Your task to perform on an android device: turn off airplane mode Image 0: 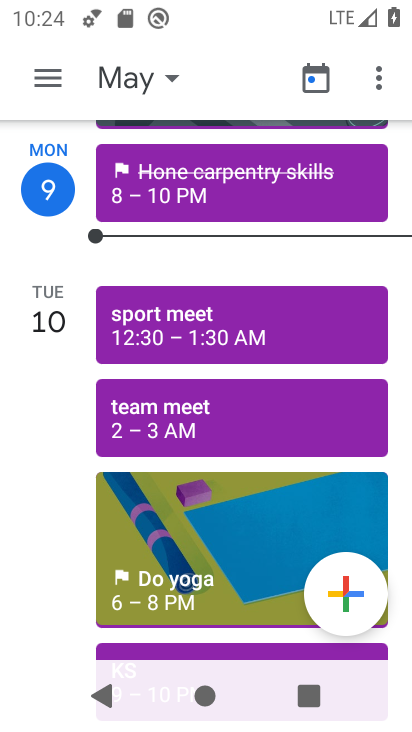
Step 0: press home button
Your task to perform on an android device: turn off airplane mode Image 1: 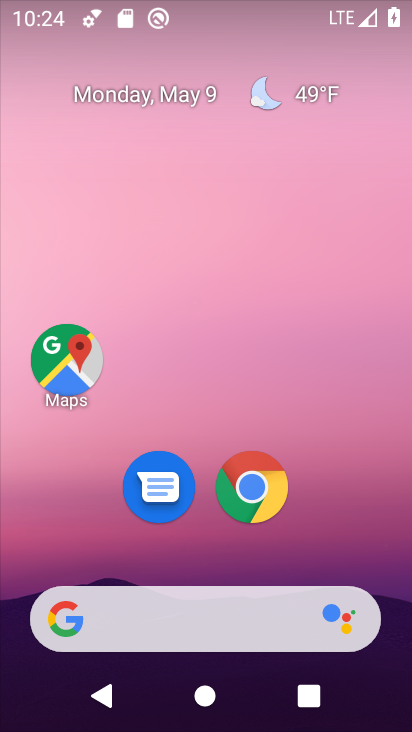
Step 1: drag from (313, 545) to (257, 81)
Your task to perform on an android device: turn off airplane mode Image 2: 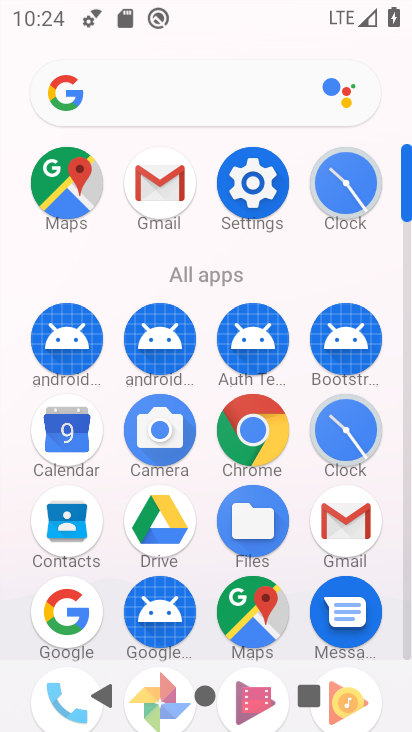
Step 2: click (250, 215)
Your task to perform on an android device: turn off airplane mode Image 3: 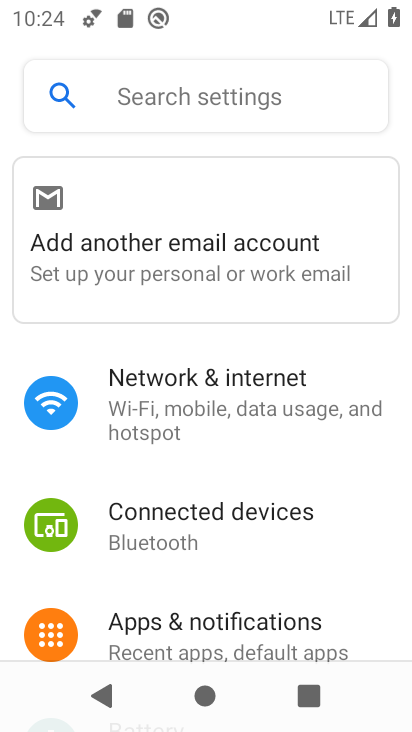
Step 3: drag from (230, 559) to (247, 260)
Your task to perform on an android device: turn off airplane mode Image 4: 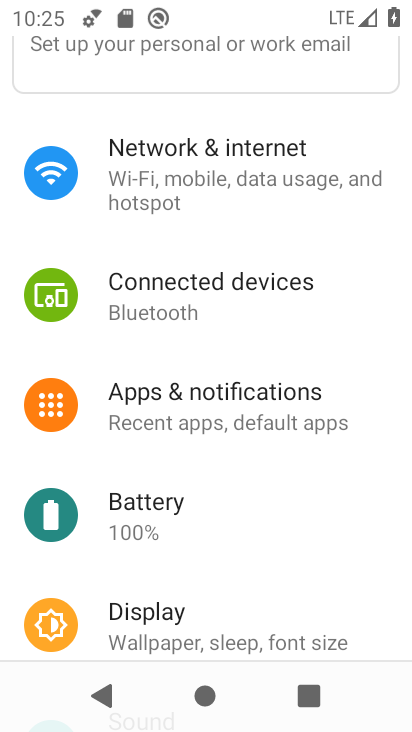
Step 4: click (240, 202)
Your task to perform on an android device: turn off airplane mode Image 5: 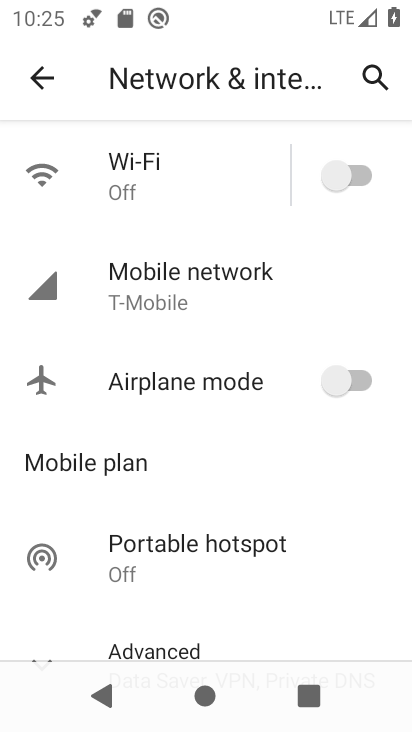
Step 5: task complete